Your task to perform on an android device: What's on my calendar for the rest of the week? Image 0: 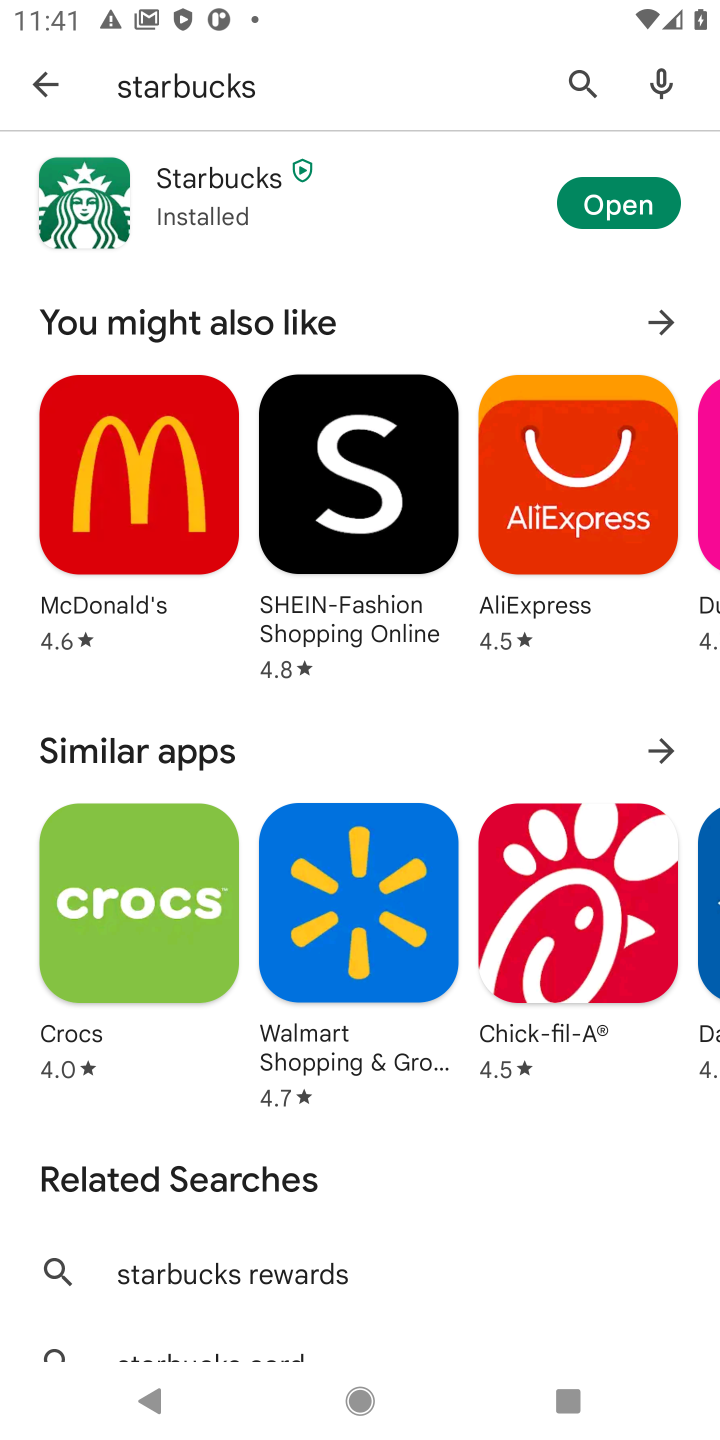
Step 0: press home button
Your task to perform on an android device: What's on my calendar for the rest of the week? Image 1: 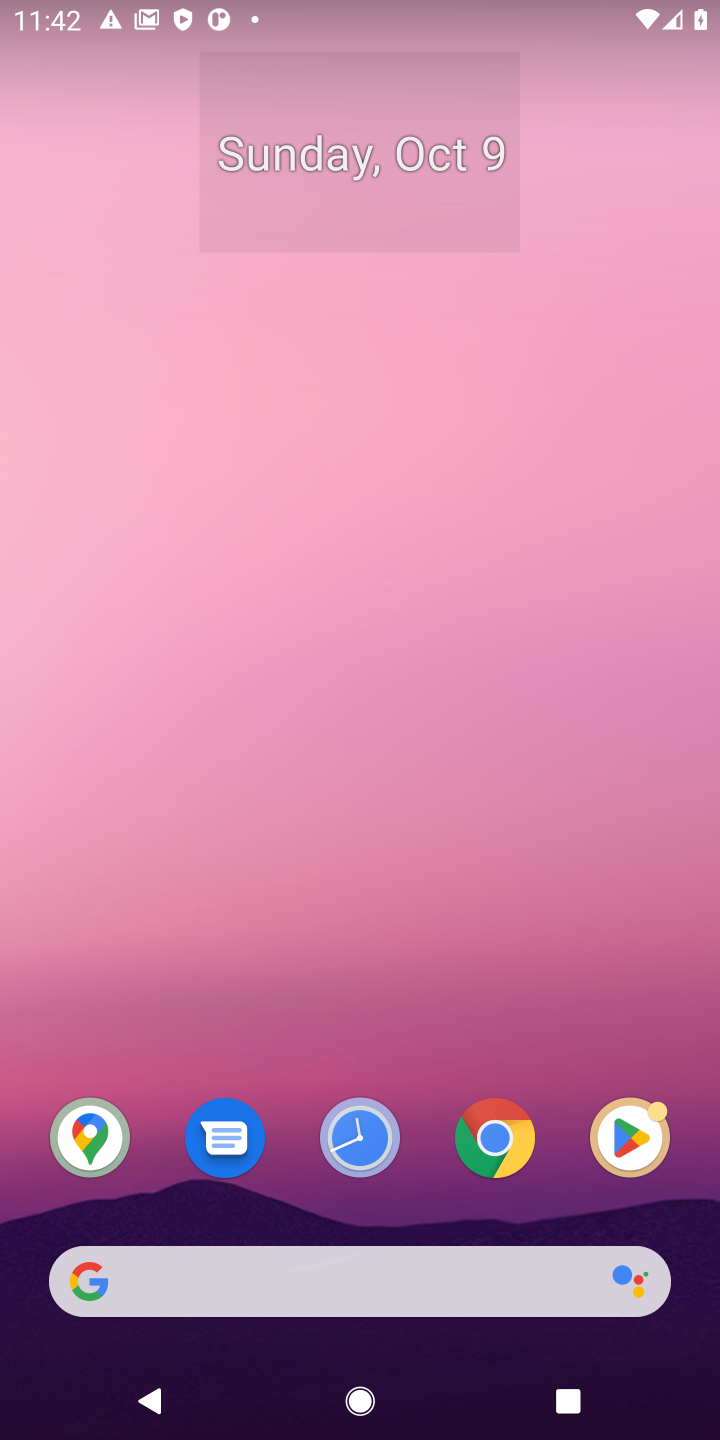
Step 1: drag from (329, 1180) to (184, 179)
Your task to perform on an android device: What's on my calendar for the rest of the week? Image 2: 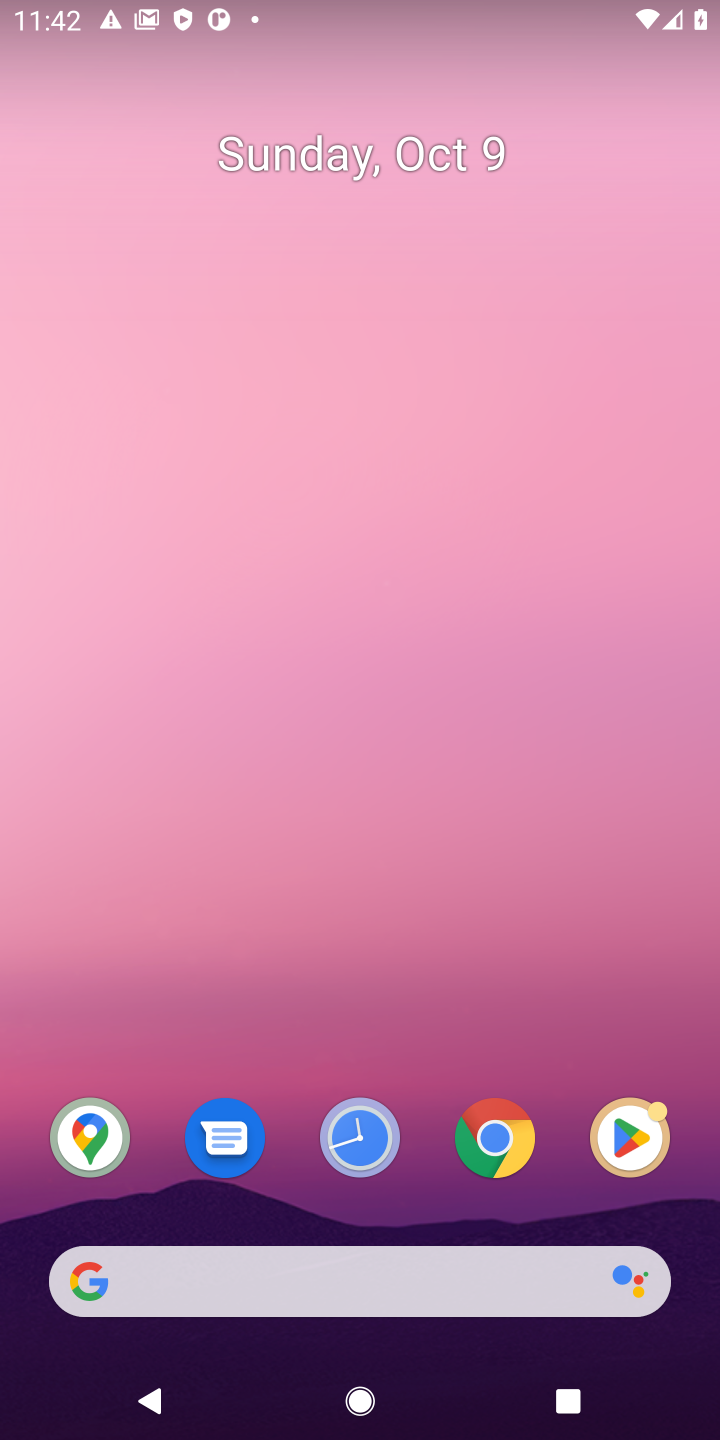
Step 2: drag from (409, 1184) to (254, 270)
Your task to perform on an android device: What's on my calendar for the rest of the week? Image 3: 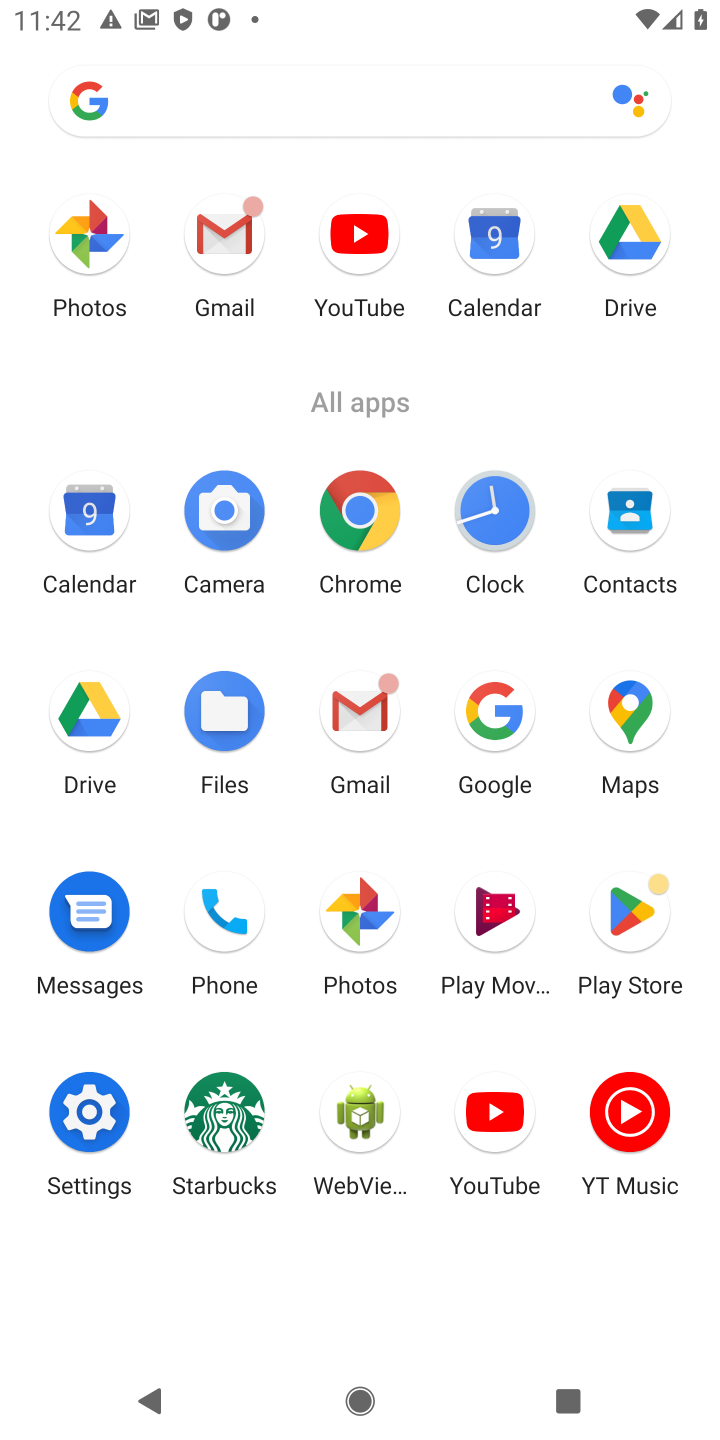
Step 3: click (115, 538)
Your task to perform on an android device: What's on my calendar for the rest of the week? Image 4: 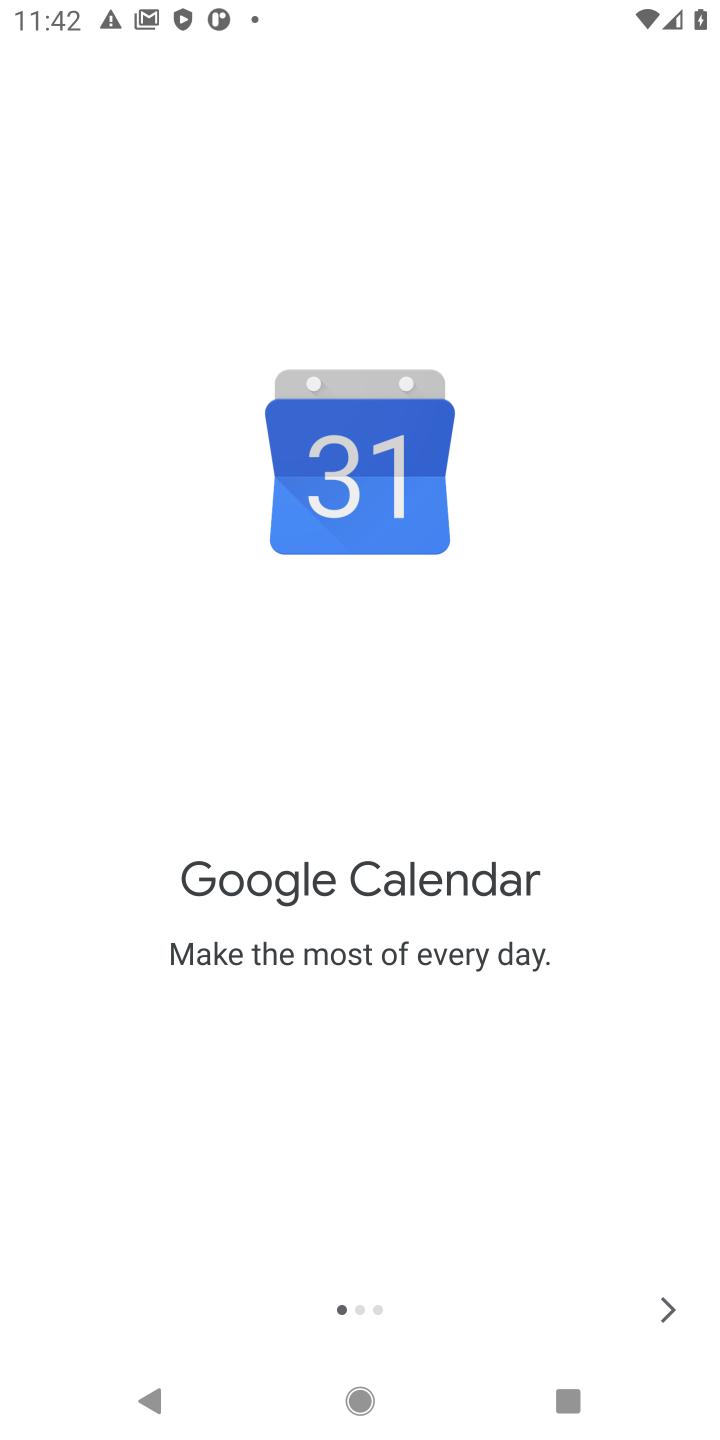
Step 4: click (668, 1307)
Your task to perform on an android device: What's on my calendar for the rest of the week? Image 5: 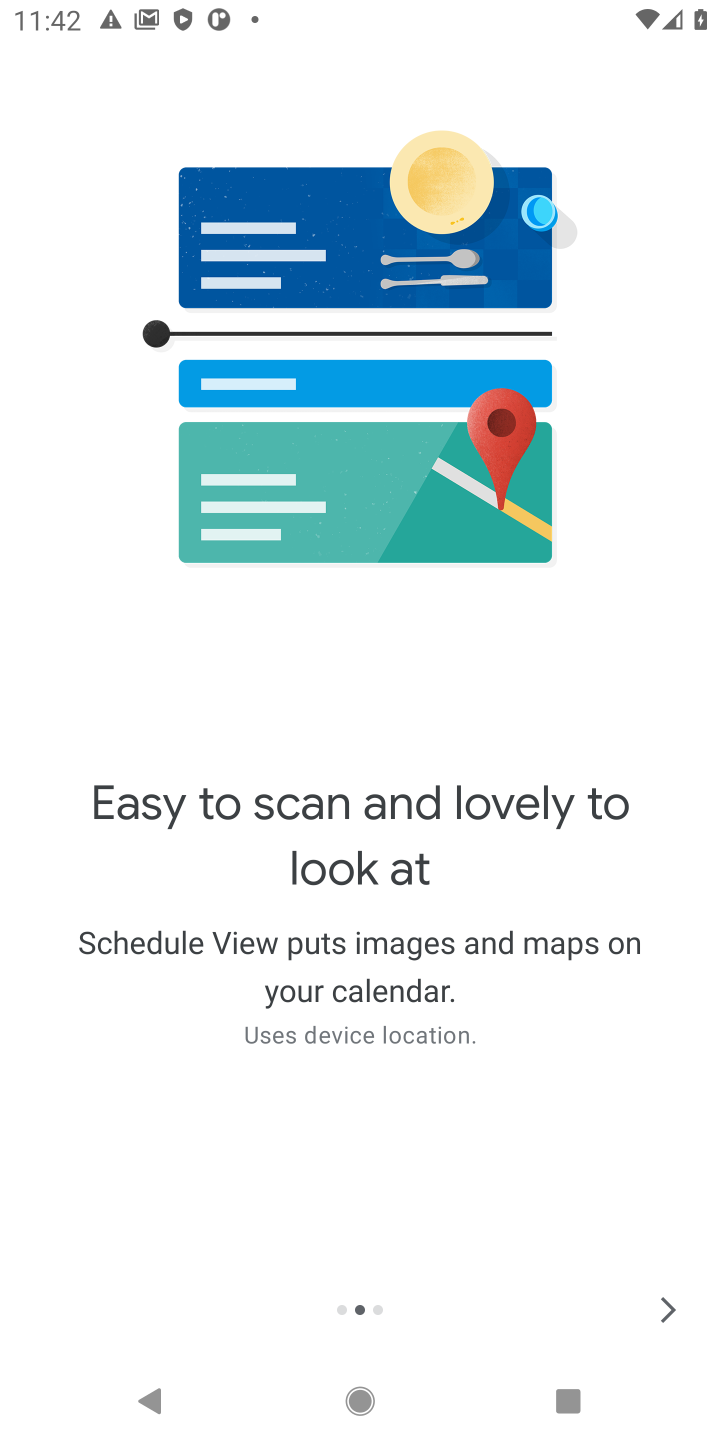
Step 5: click (668, 1307)
Your task to perform on an android device: What's on my calendar for the rest of the week? Image 6: 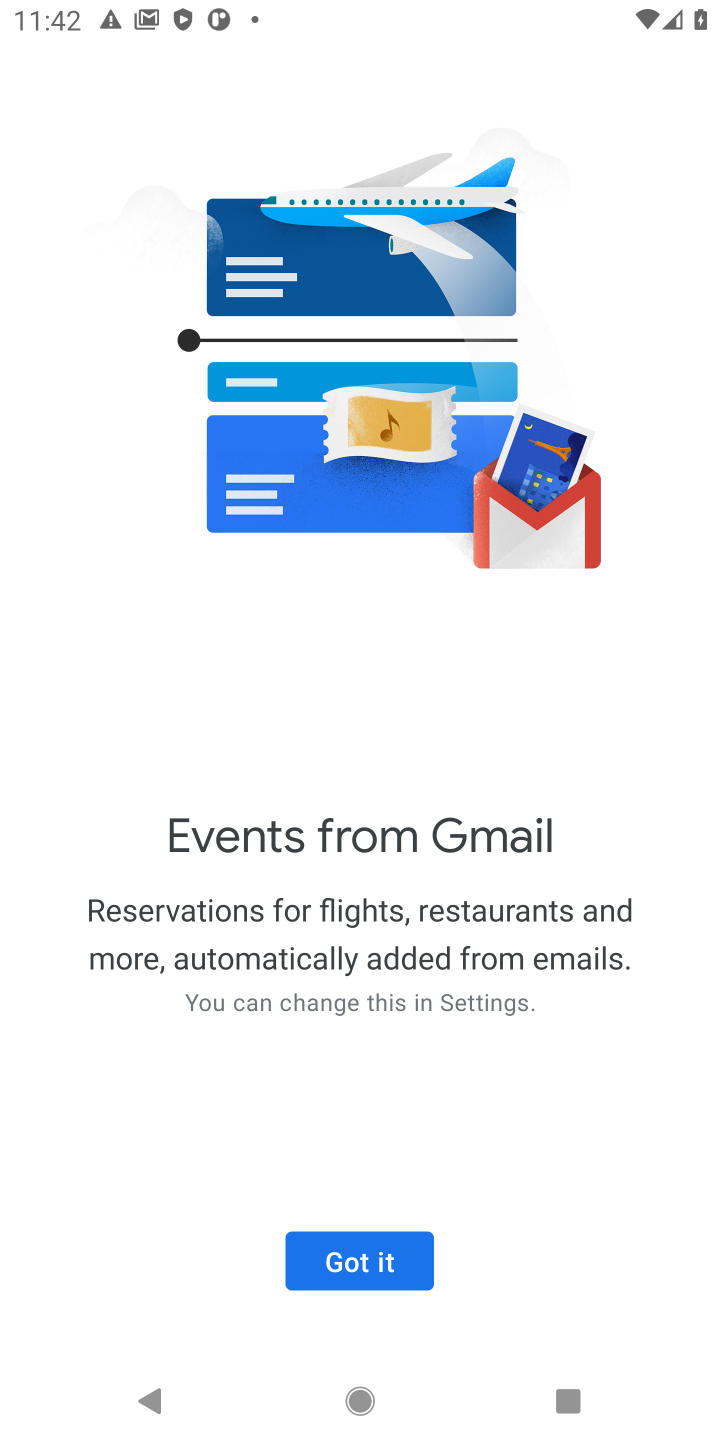
Step 6: click (409, 1274)
Your task to perform on an android device: What's on my calendar for the rest of the week? Image 7: 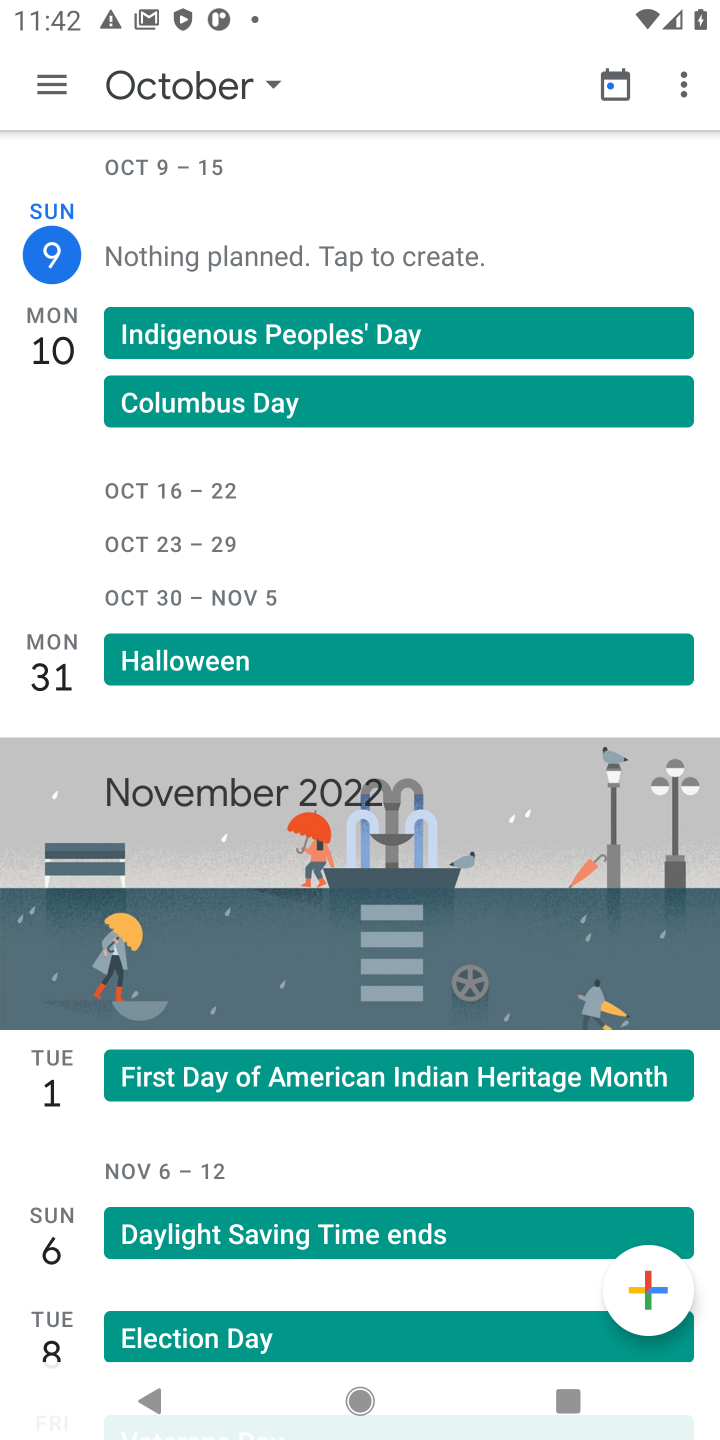
Step 7: click (52, 92)
Your task to perform on an android device: What's on my calendar for the rest of the week? Image 8: 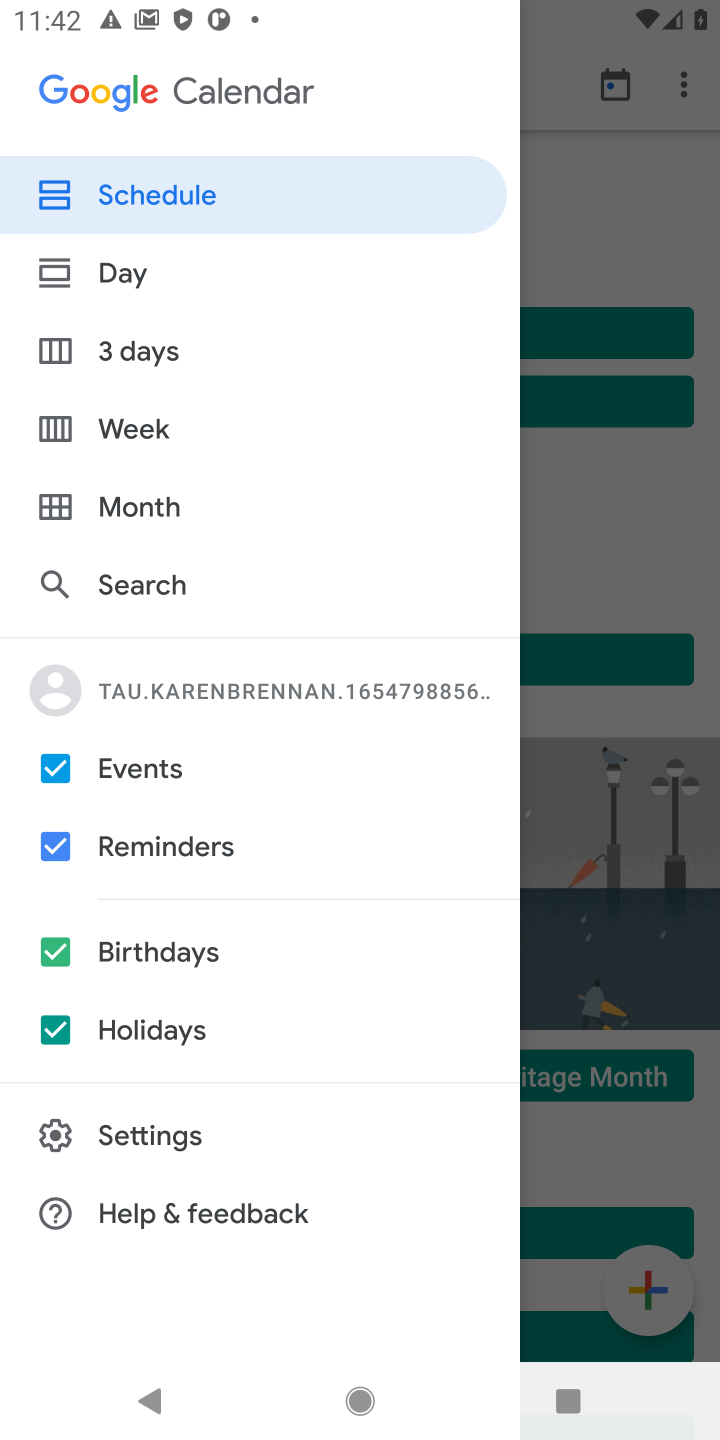
Step 8: click (156, 441)
Your task to perform on an android device: What's on my calendar for the rest of the week? Image 9: 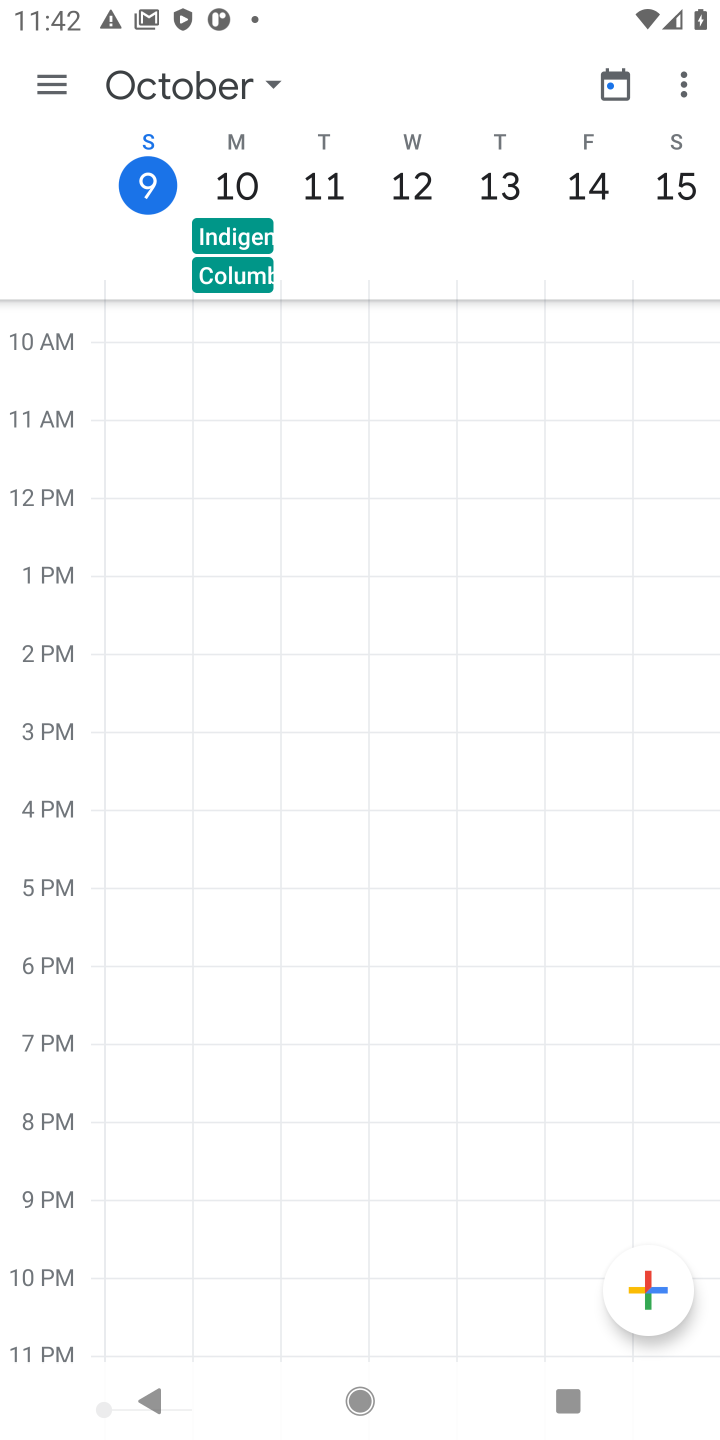
Step 9: task complete